Your task to perform on an android device: Search for pizza restaurants on Maps Image 0: 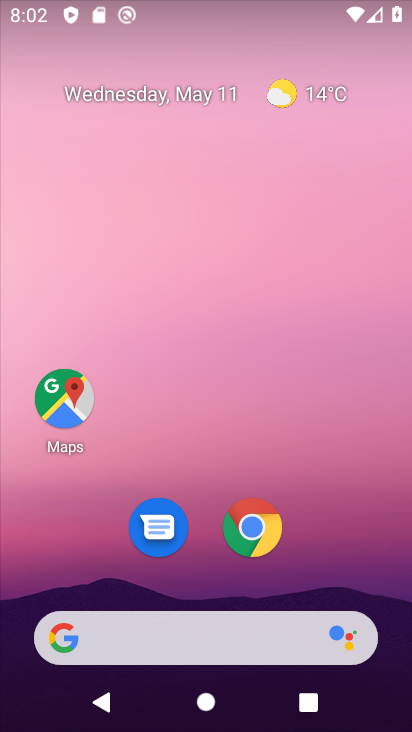
Step 0: click (66, 397)
Your task to perform on an android device: Search for pizza restaurants on Maps Image 1: 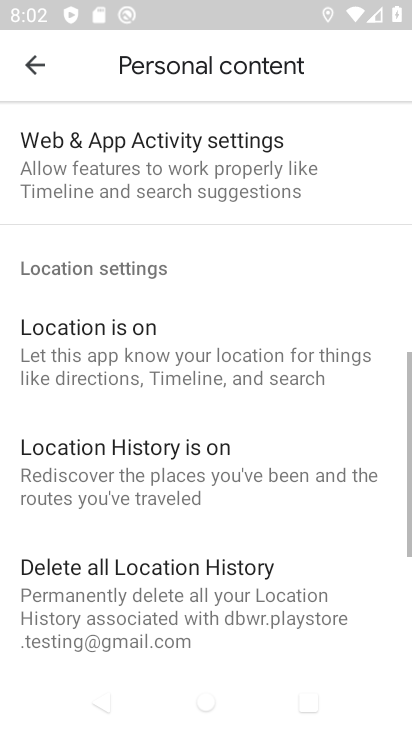
Step 1: click (36, 62)
Your task to perform on an android device: Search for pizza restaurants on Maps Image 2: 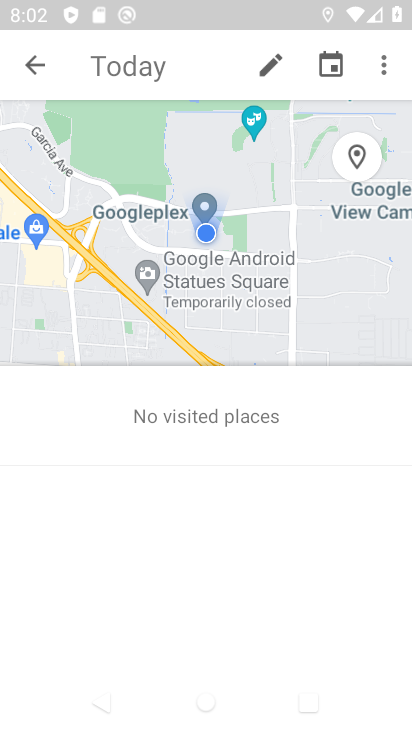
Step 2: click (32, 63)
Your task to perform on an android device: Search for pizza restaurants on Maps Image 3: 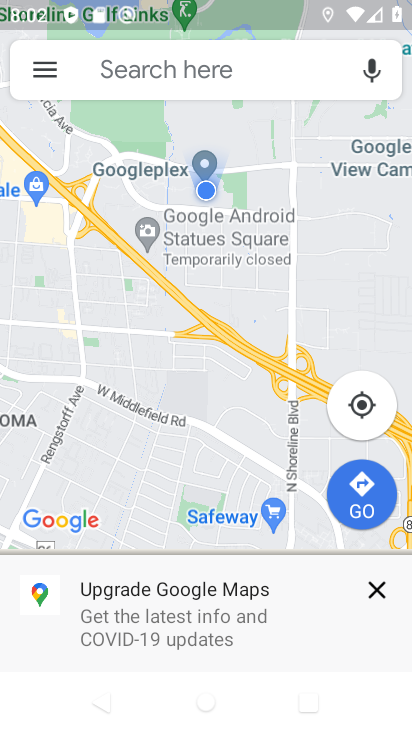
Step 3: click (124, 71)
Your task to perform on an android device: Search for pizza restaurants on Maps Image 4: 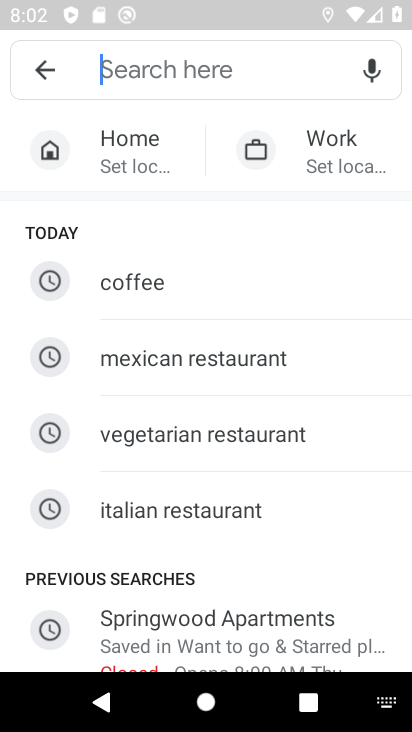
Step 4: type "pizza restaurant"
Your task to perform on an android device: Search for pizza restaurants on Maps Image 5: 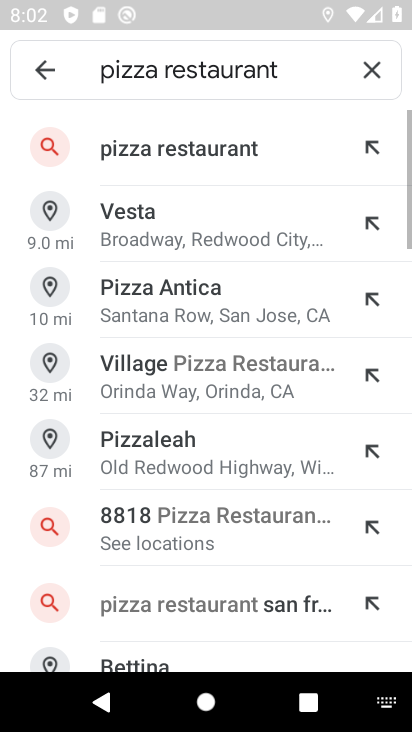
Step 5: click (161, 152)
Your task to perform on an android device: Search for pizza restaurants on Maps Image 6: 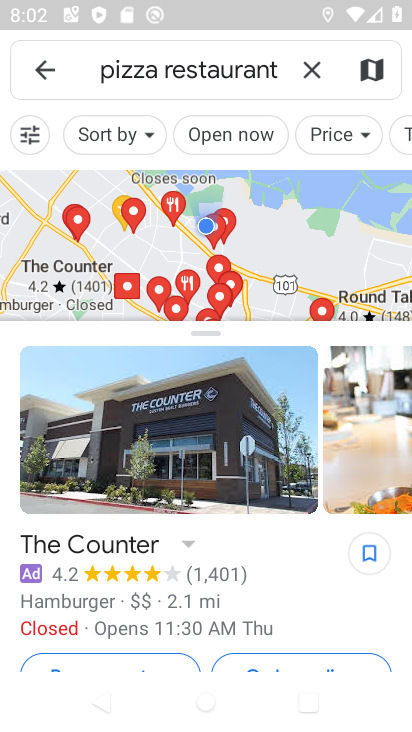
Step 6: task complete